Your task to perform on an android device: Open the calendar and show me this week's events? Image 0: 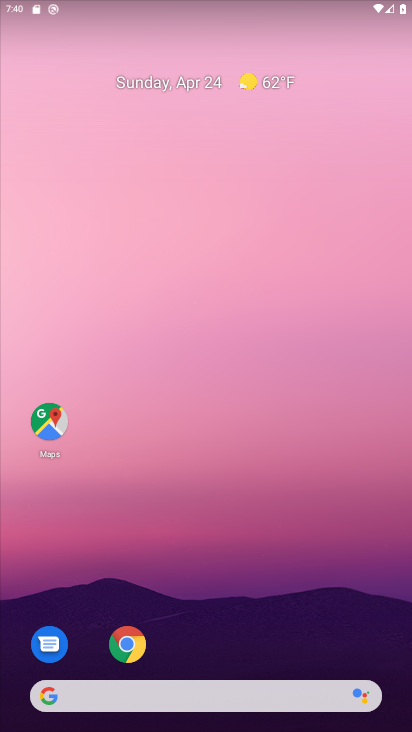
Step 0: drag from (189, 647) to (208, 123)
Your task to perform on an android device: Open the calendar and show me this week's events? Image 1: 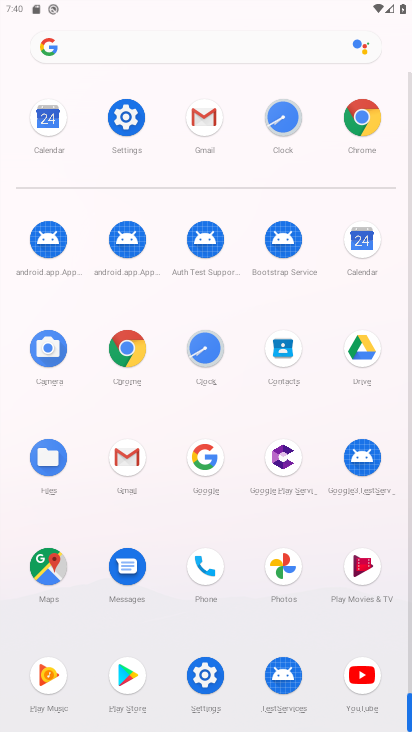
Step 1: click (361, 232)
Your task to perform on an android device: Open the calendar and show me this week's events? Image 2: 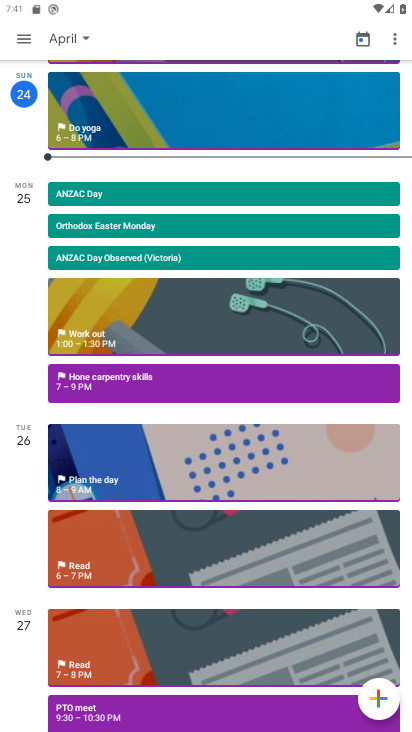
Step 2: task complete